Your task to perform on an android device: create a new album in the google photos Image 0: 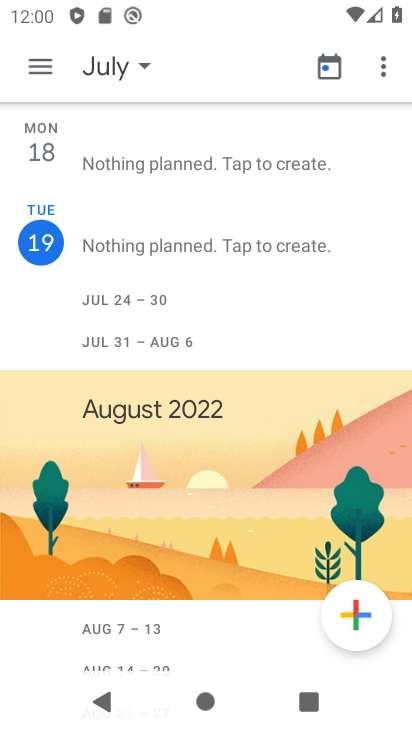
Step 0: press home button
Your task to perform on an android device: create a new album in the google photos Image 1: 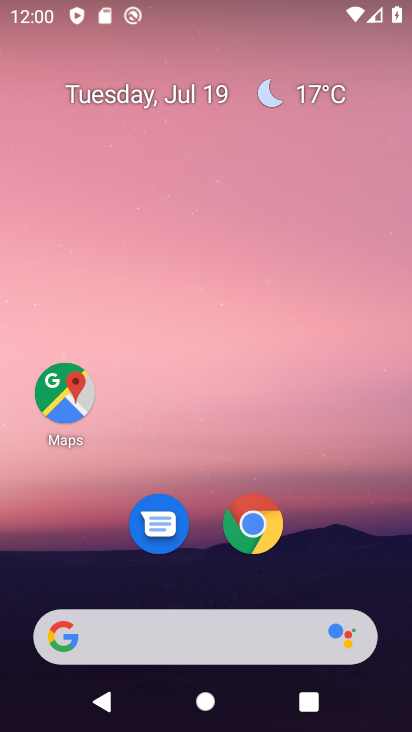
Step 1: drag from (204, 582) to (203, 128)
Your task to perform on an android device: create a new album in the google photos Image 2: 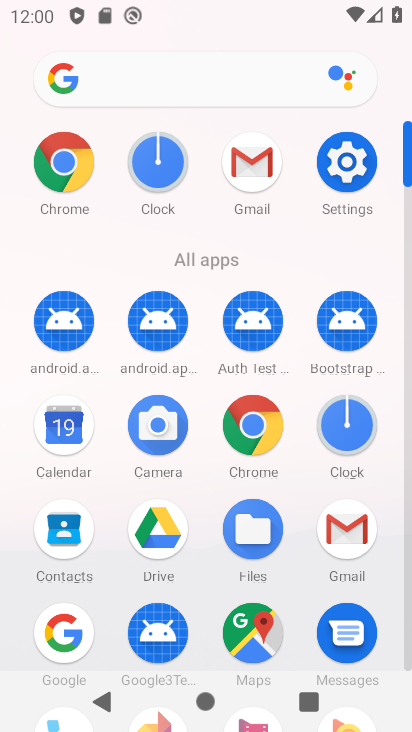
Step 2: drag from (213, 578) to (195, 173)
Your task to perform on an android device: create a new album in the google photos Image 3: 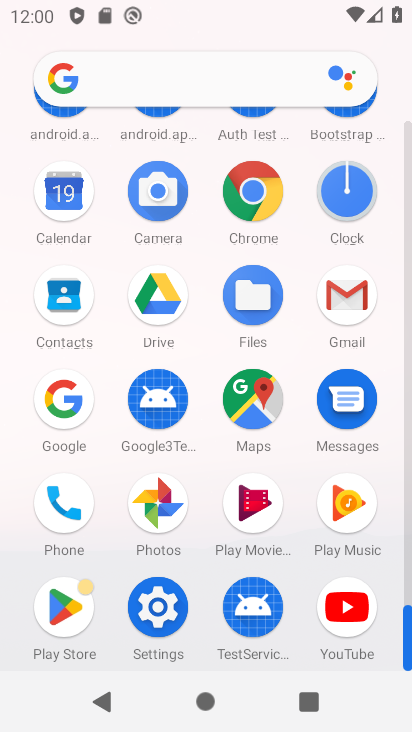
Step 3: click (163, 498)
Your task to perform on an android device: create a new album in the google photos Image 4: 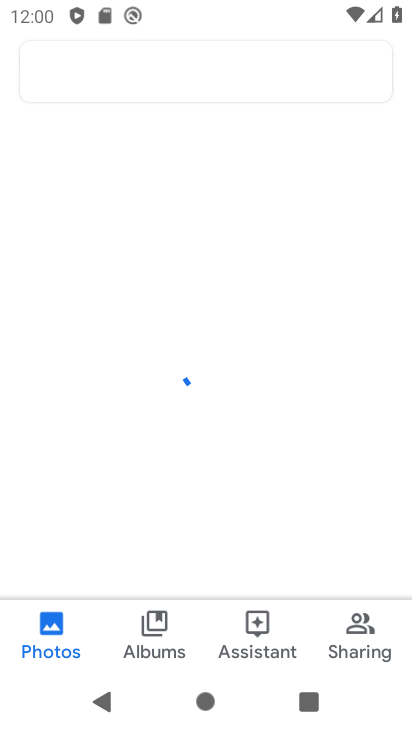
Step 4: click (155, 630)
Your task to perform on an android device: create a new album in the google photos Image 5: 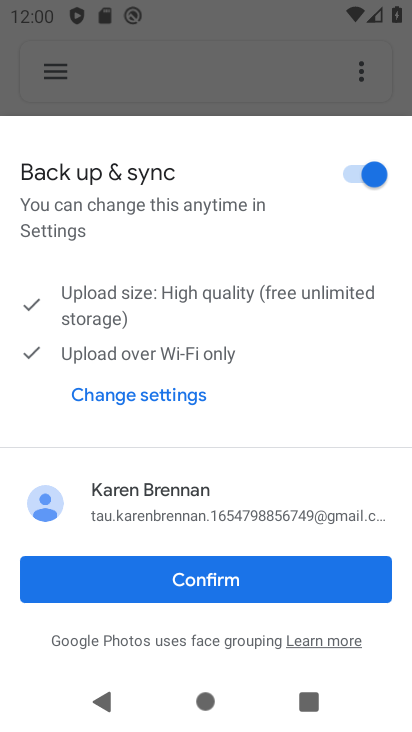
Step 5: click (183, 593)
Your task to perform on an android device: create a new album in the google photos Image 6: 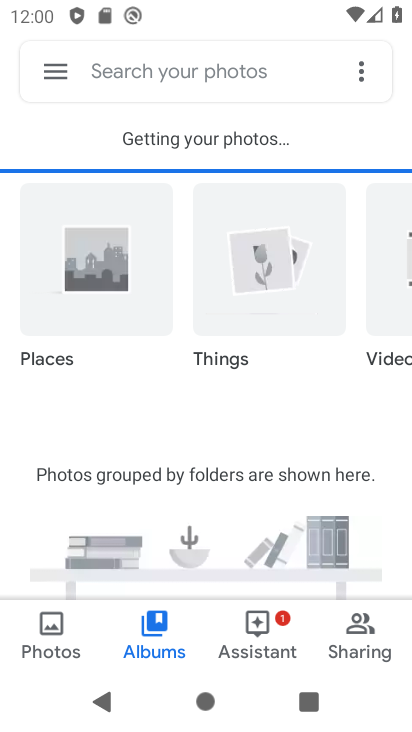
Step 6: task complete